Your task to perform on an android device: View the shopping cart on target.com. Search for jbl charge 4 on target.com, select the first entry, and add it to the cart. Image 0: 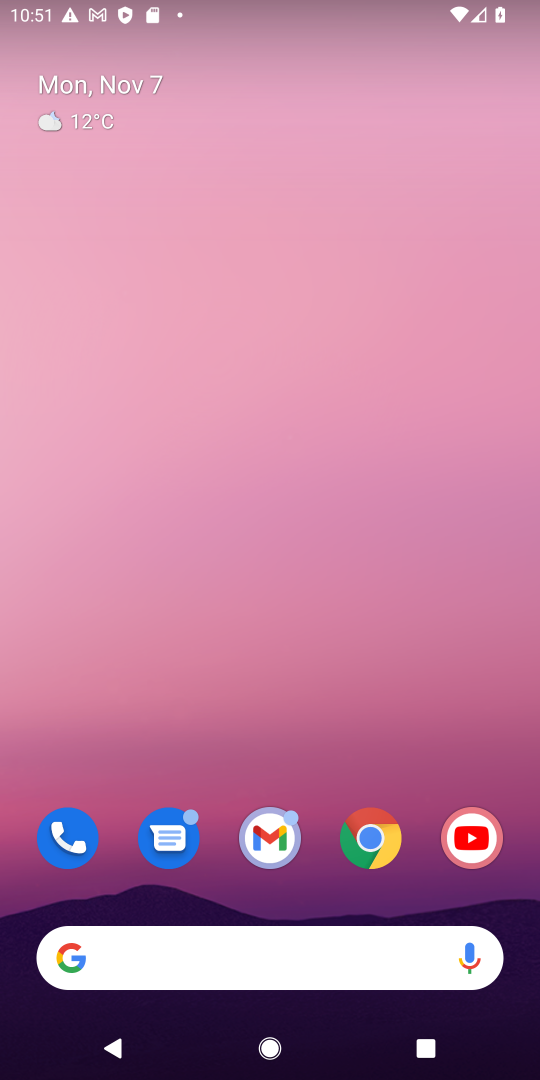
Step 0: click (382, 844)
Your task to perform on an android device: View the shopping cart on target.com. Search for jbl charge 4 on target.com, select the first entry, and add it to the cart. Image 1: 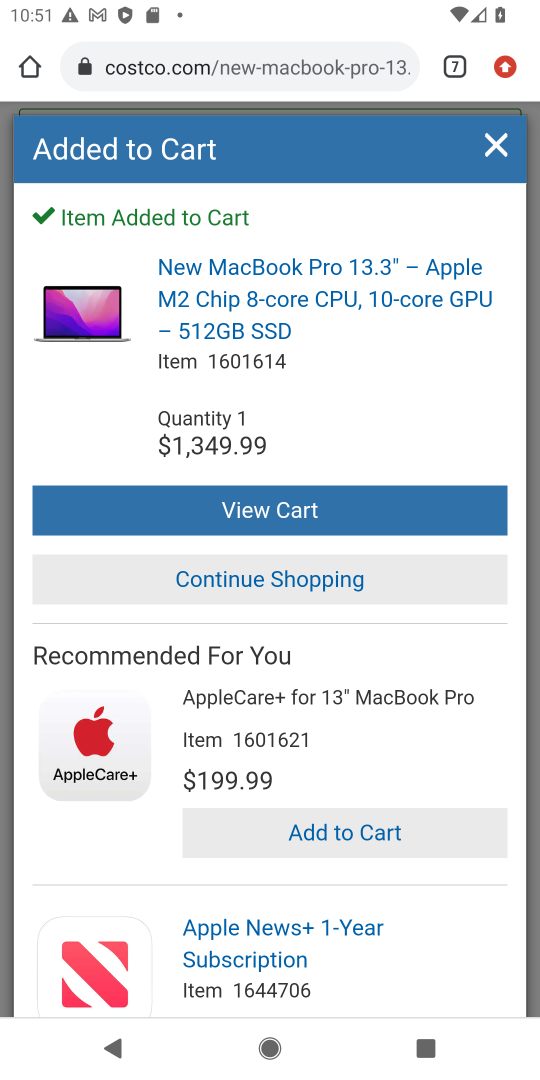
Step 1: click (454, 70)
Your task to perform on an android device: View the shopping cart on target.com. Search for jbl charge 4 on target.com, select the first entry, and add it to the cart. Image 2: 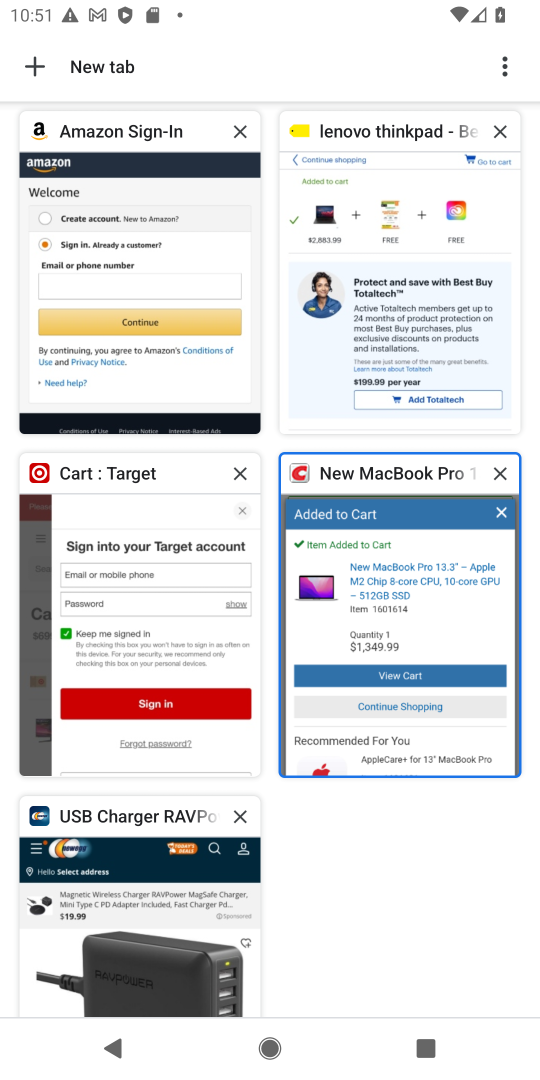
Step 2: click (138, 552)
Your task to perform on an android device: View the shopping cart on target.com. Search for jbl charge 4 on target.com, select the first entry, and add it to the cart. Image 3: 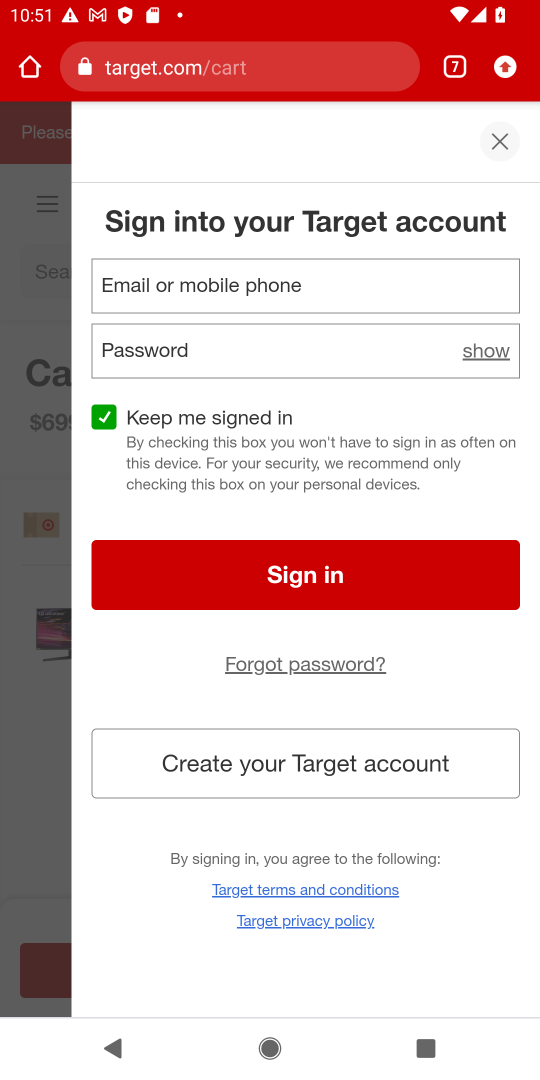
Step 3: click (494, 150)
Your task to perform on an android device: View the shopping cart on target.com. Search for jbl charge 4 on target.com, select the first entry, and add it to the cart. Image 4: 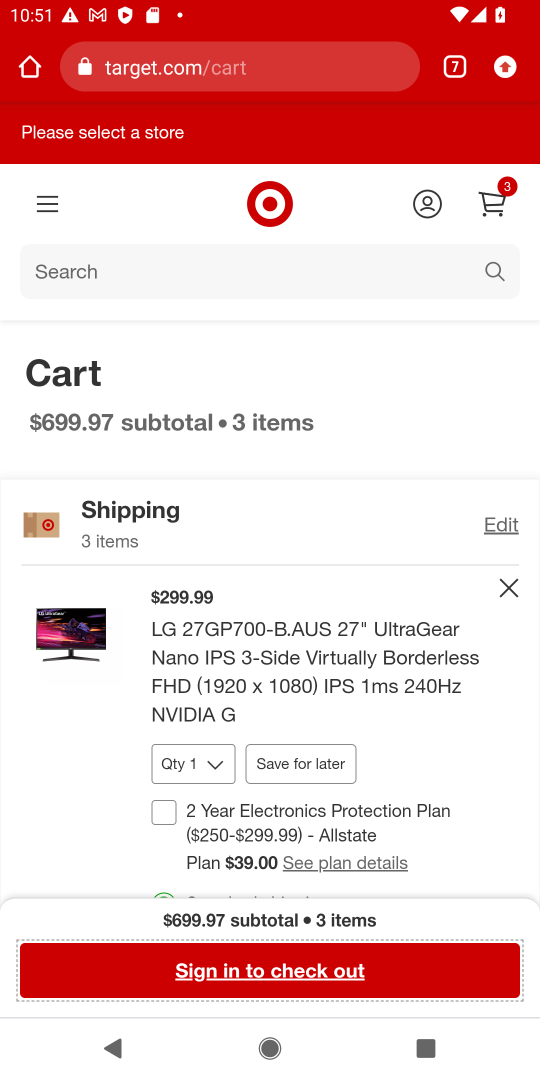
Step 4: click (227, 275)
Your task to perform on an android device: View the shopping cart on target.com. Search for jbl charge 4 on target.com, select the first entry, and add it to the cart. Image 5: 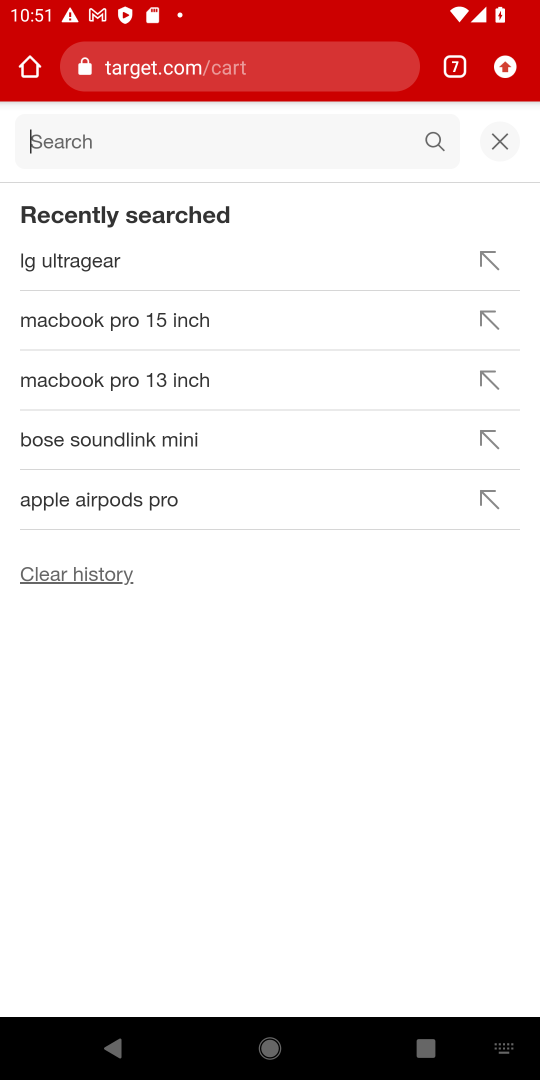
Step 5: type "jbl charge 4"
Your task to perform on an android device: View the shopping cart on target.com. Search for jbl charge 4 on target.com, select the first entry, and add it to the cart. Image 6: 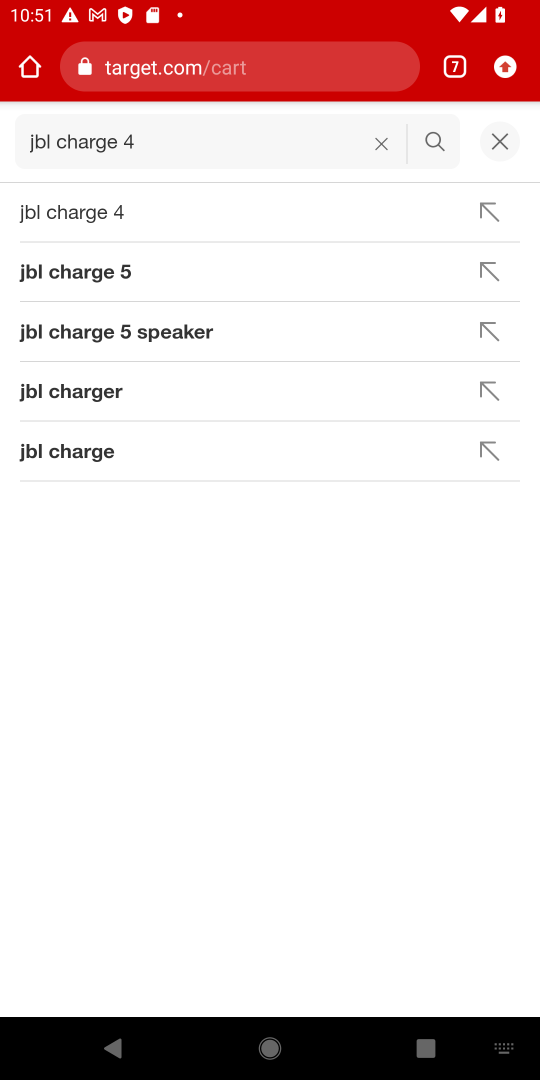
Step 6: click (105, 213)
Your task to perform on an android device: View the shopping cart on target.com. Search for jbl charge 4 on target.com, select the first entry, and add it to the cart. Image 7: 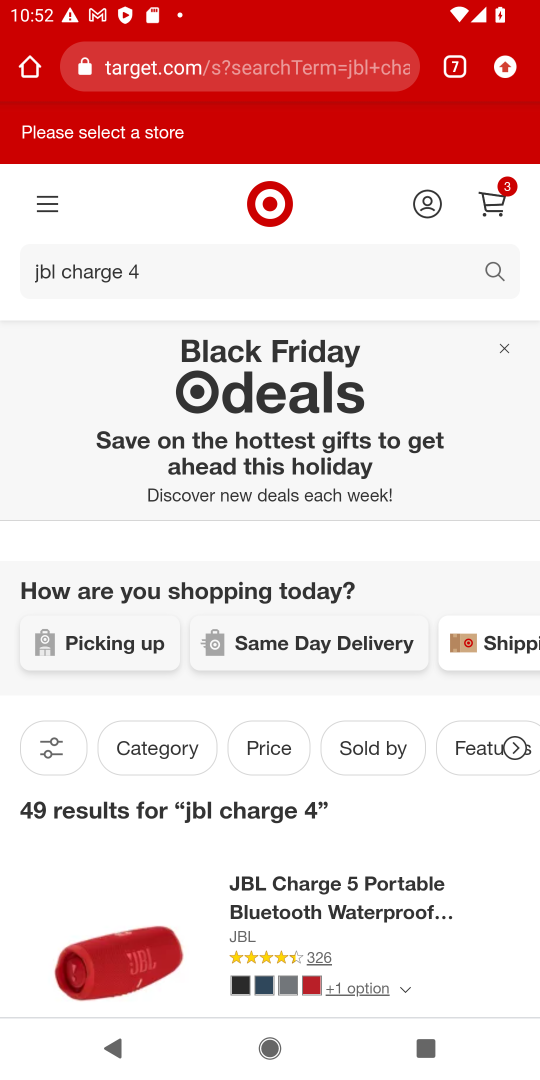
Step 7: drag from (388, 925) to (412, 401)
Your task to perform on an android device: View the shopping cart on target.com. Search for jbl charge 4 on target.com, select the first entry, and add it to the cart. Image 8: 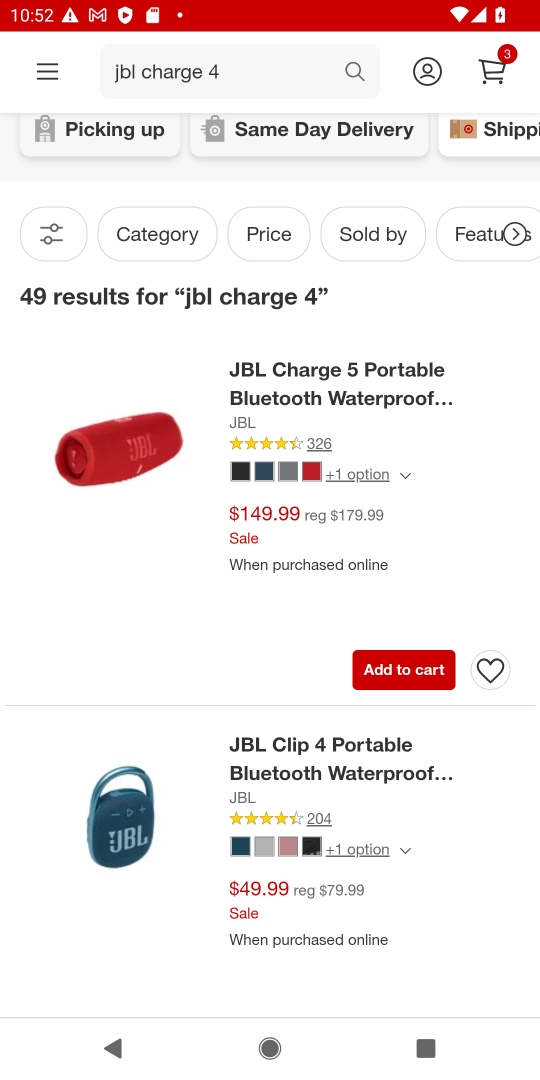
Step 8: click (340, 757)
Your task to perform on an android device: View the shopping cart on target.com. Search for jbl charge 4 on target.com, select the first entry, and add it to the cart. Image 9: 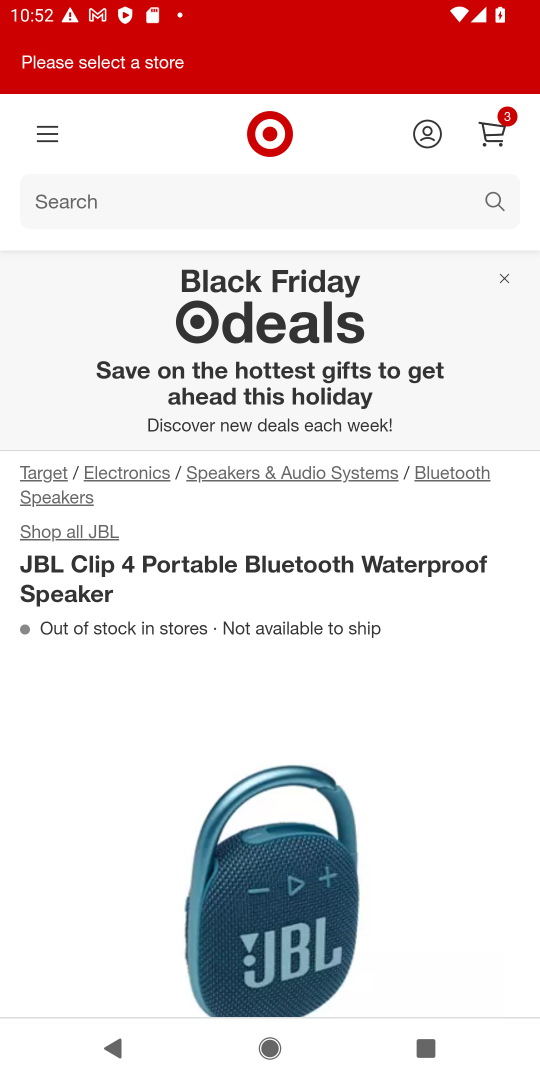
Step 9: drag from (408, 916) to (444, 273)
Your task to perform on an android device: View the shopping cart on target.com. Search for jbl charge 4 on target.com, select the first entry, and add it to the cart. Image 10: 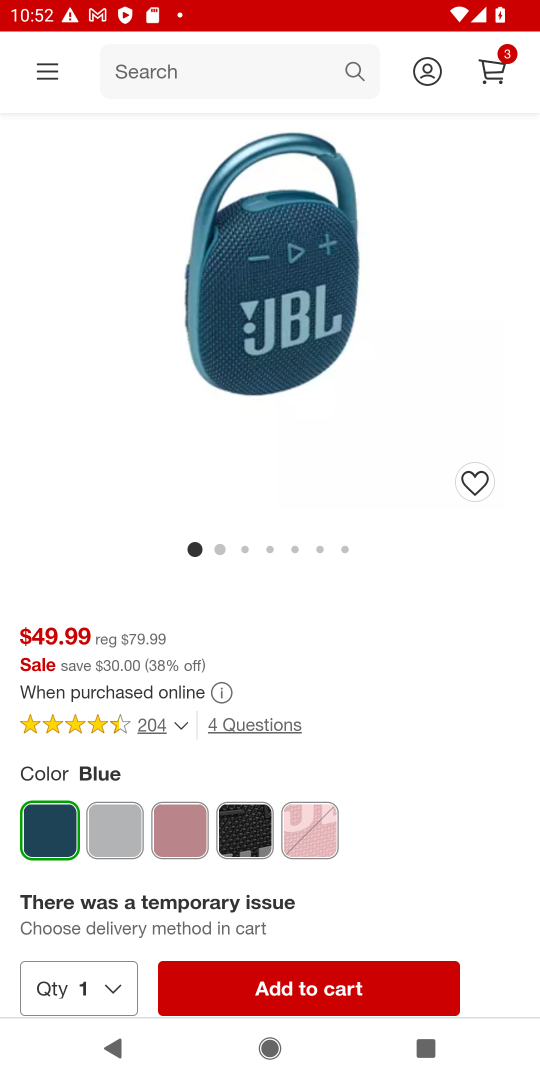
Step 10: click (336, 987)
Your task to perform on an android device: View the shopping cart on target.com. Search for jbl charge 4 on target.com, select the first entry, and add it to the cart. Image 11: 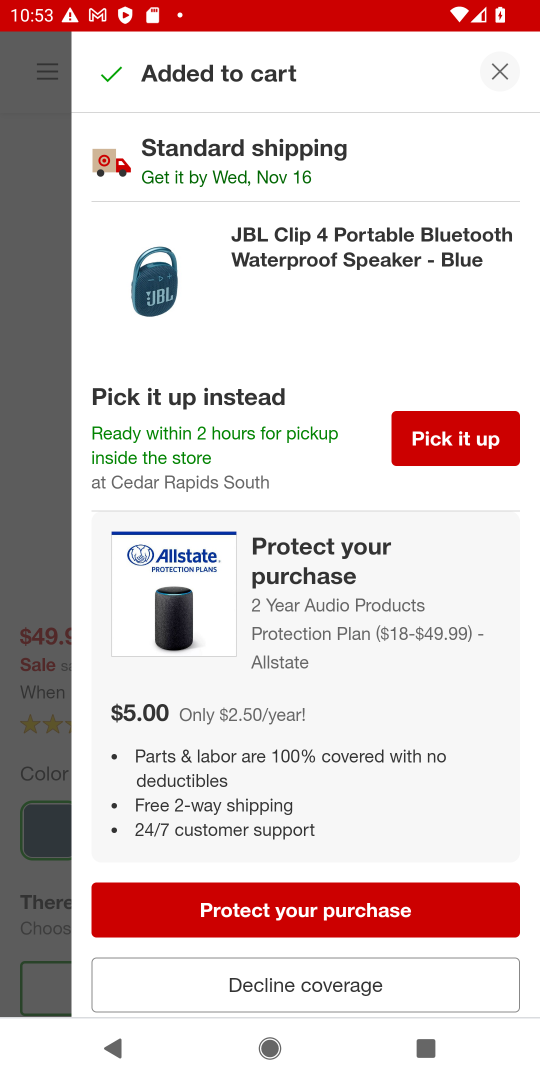
Step 11: task complete